Your task to perform on an android device: toggle show notifications on the lock screen Image 0: 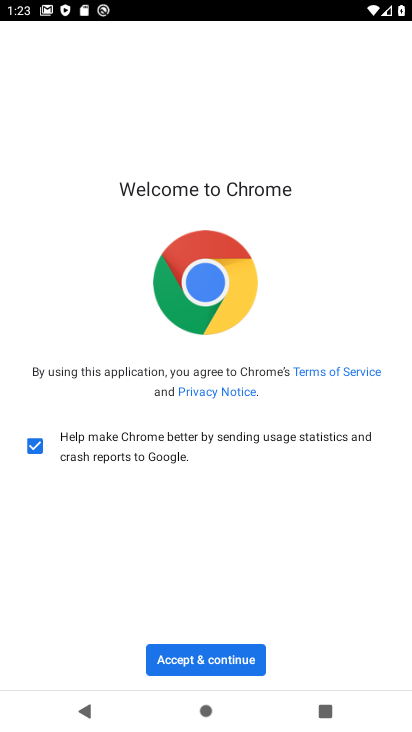
Step 0: press home button
Your task to perform on an android device: toggle show notifications on the lock screen Image 1: 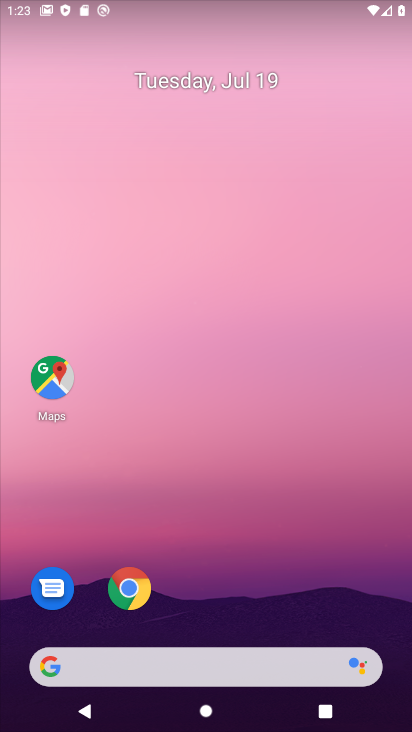
Step 1: drag from (287, 590) to (261, 88)
Your task to perform on an android device: toggle show notifications on the lock screen Image 2: 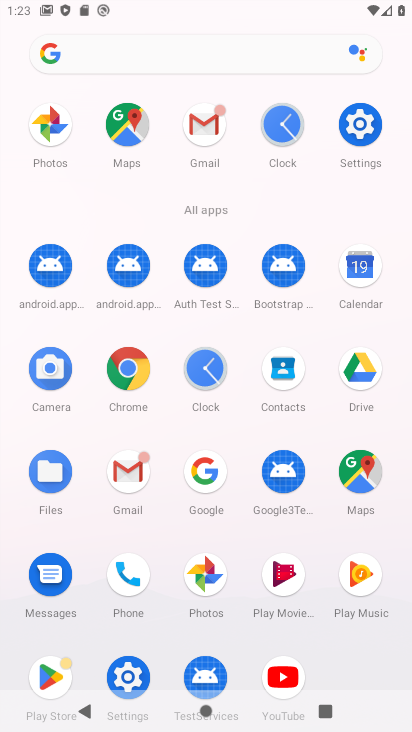
Step 2: click (359, 111)
Your task to perform on an android device: toggle show notifications on the lock screen Image 3: 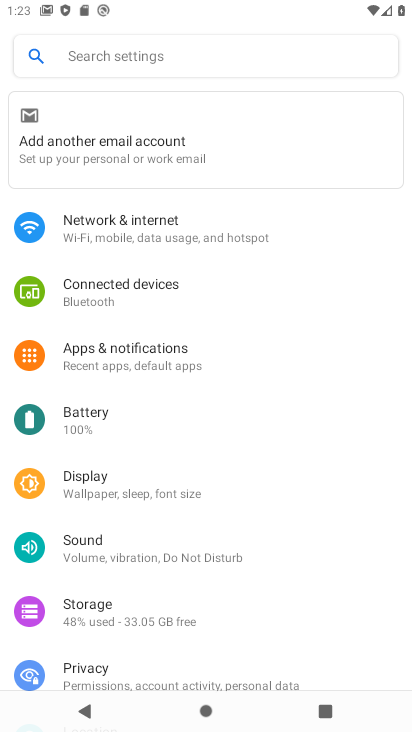
Step 3: click (224, 350)
Your task to perform on an android device: toggle show notifications on the lock screen Image 4: 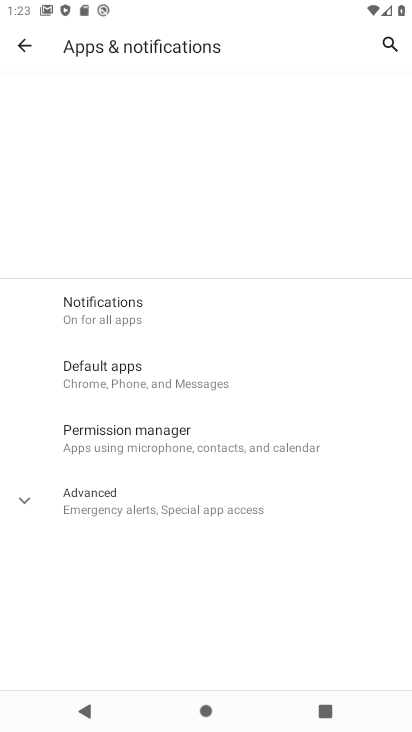
Step 4: click (194, 323)
Your task to perform on an android device: toggle show notifications on the lock screen Image 5: 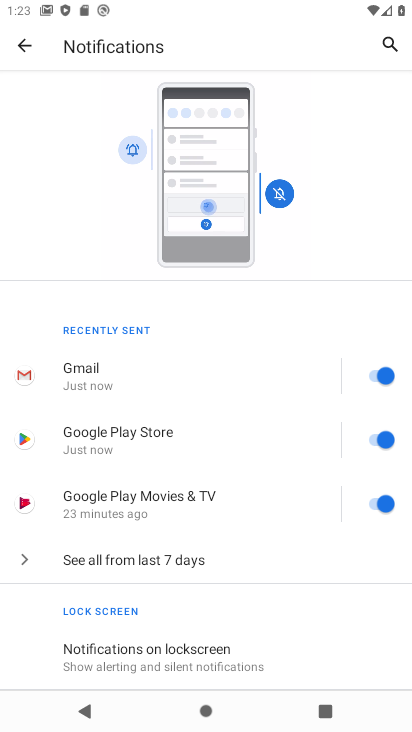
Step 5: click (200, 650)
Your task to perform on an android device: toggle show notifications on the lock screen Image 6: 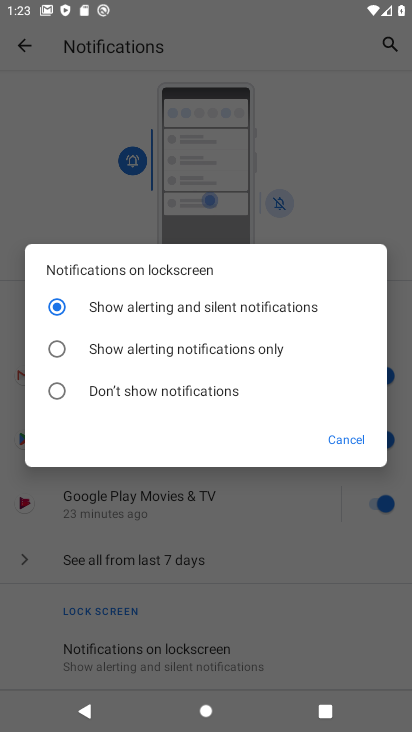
Step 6: click (185, 356)
Your task to perform on an android device: toggle show notifications on the lock screen Image 7: 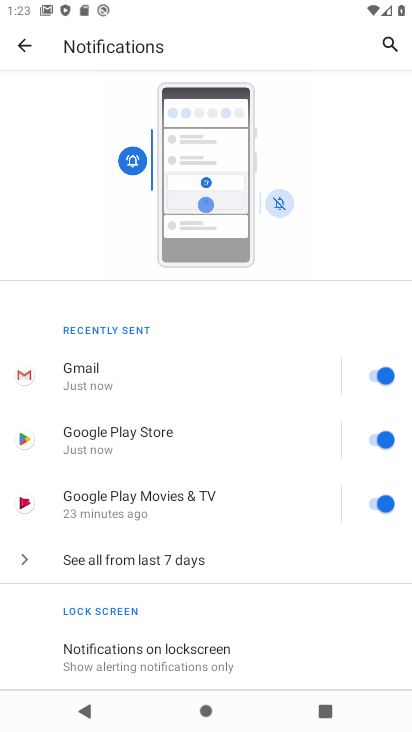
Step 7: task complete